Your task to perform on an android device: change notification settings in the gmail app Image 0: 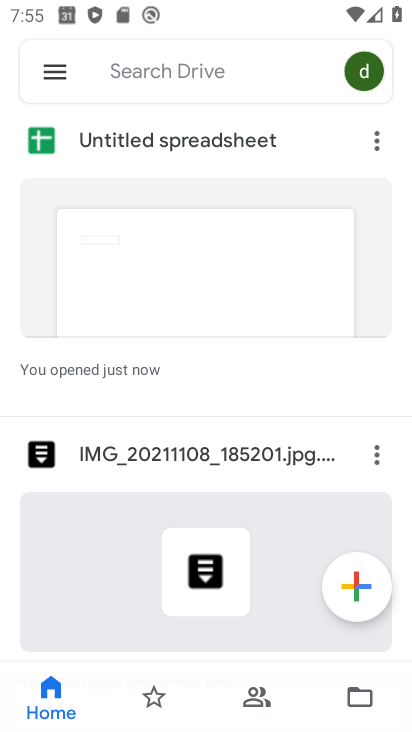
Step 0: press home button
Your task to perform on an android device: change notification settings in the gmail app Image 1: 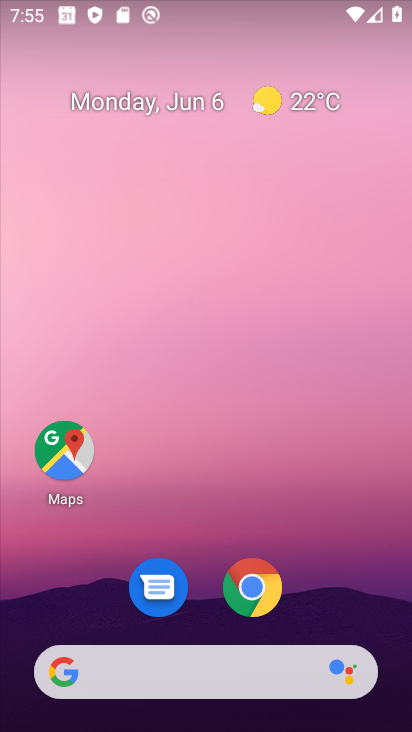
Step 1: drag from (166, 655) to (178, 290)
Your task to perform on an android device: change notification settings in the gmail app Image 2: 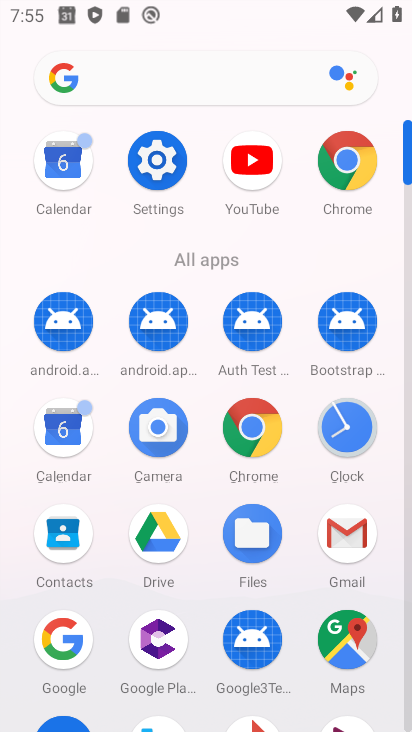
Step 2: click (336, 548)
Your task to perform on an android device: change notification settings in the gmail app Image 3: 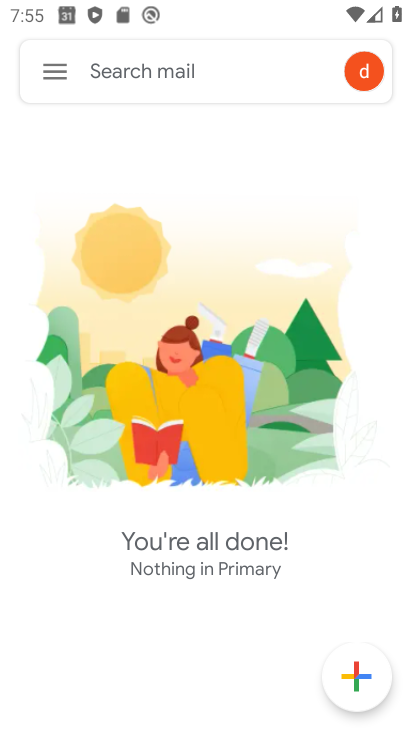
Step 3: click (50, 70)
Your task to perform on an android device: change notification settings in the gmail app Image 4: 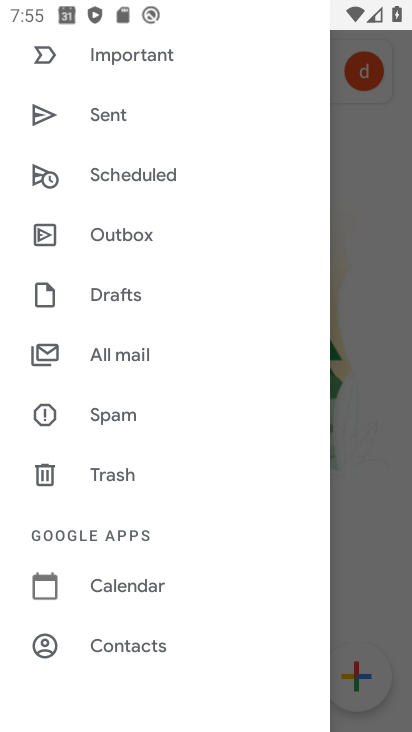
Step 4: drag from (109, 670) to (159, 198)
Your task to perform on an android device: change notification settings in the gmail app Image 5: 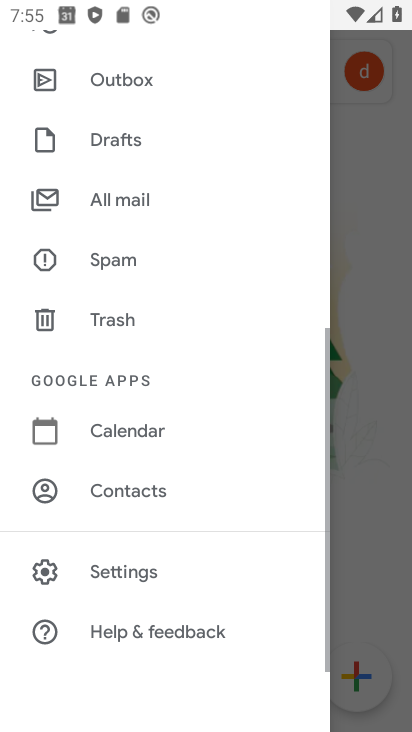
Step 5: click (137, 575)
Your task to perform on an android device: change notification settings in the gmail app Image 6: 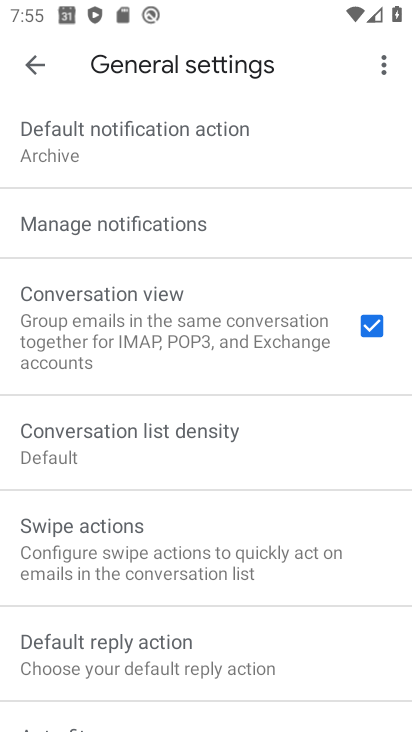
Step 6: click (40, 62)
Your task to perform on an android device: change notification settings in the gmail app Image 7: 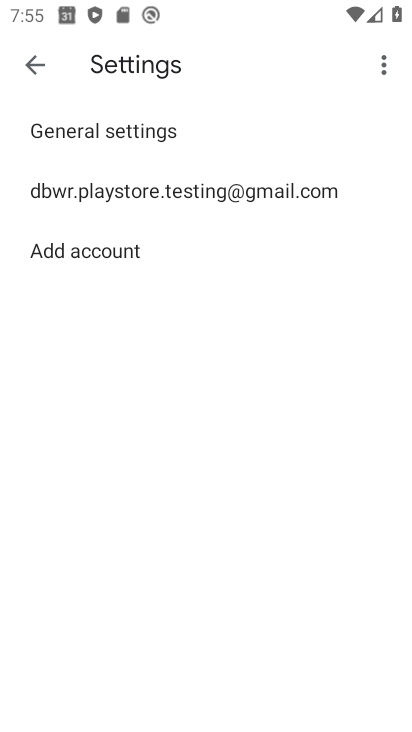
Step 7: click (87, 195)
Your task to perform on an android device: change notification settings in the gmail app Image 8: 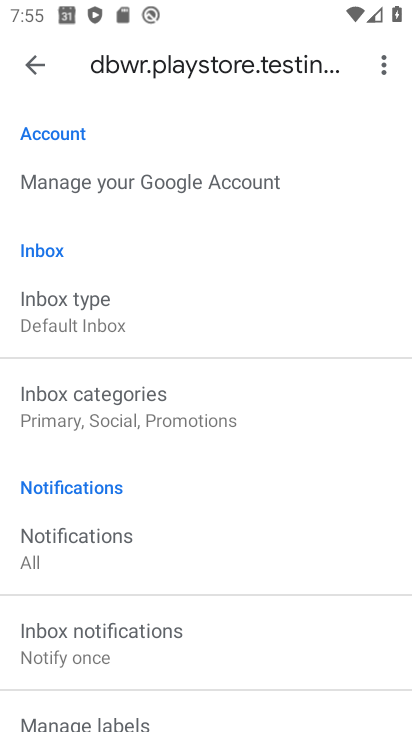
Step 8: click (85, 543)
Your task to perform on an android device: change notification settings in the gmail app Image 9: 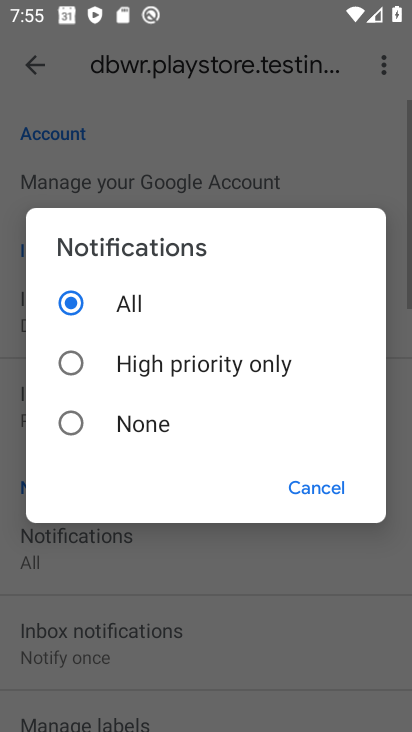
Step 9: click (167, 421)
Your task to perform on an android device: change notification settings in the gmail app Image 10: 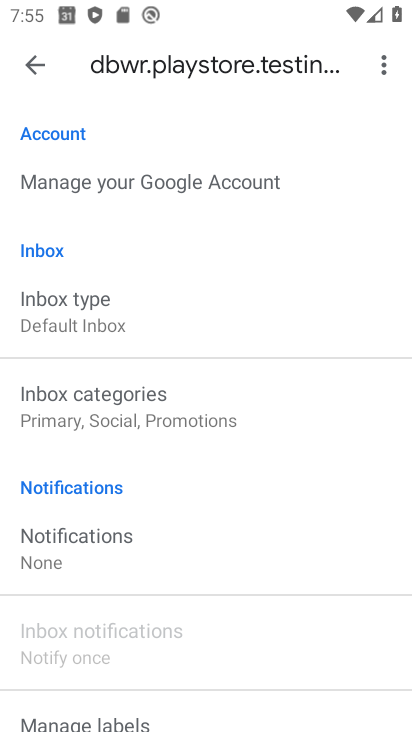
Step 10: task complete